Your task to perform on an android device: Open sound settings Image 0: 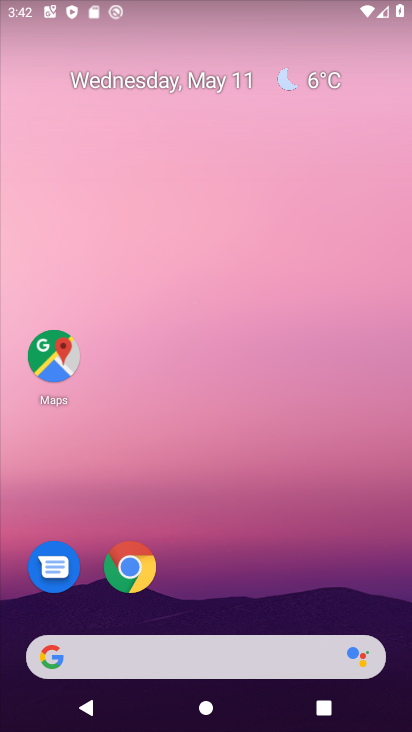
Step 0: drag from (233, 367) to (231, 287)
Your task to perform on an android device: Open sound settings Image 1: 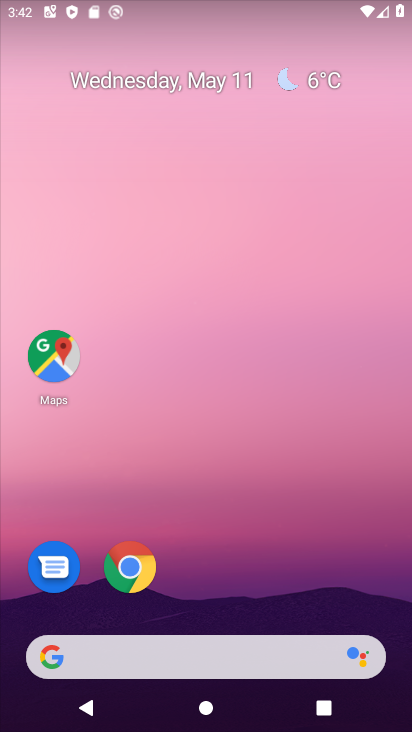
Step 1: drag from (216, 418) to (209, 335)
Your task to perform on an android device: Open sound settings Image 2: 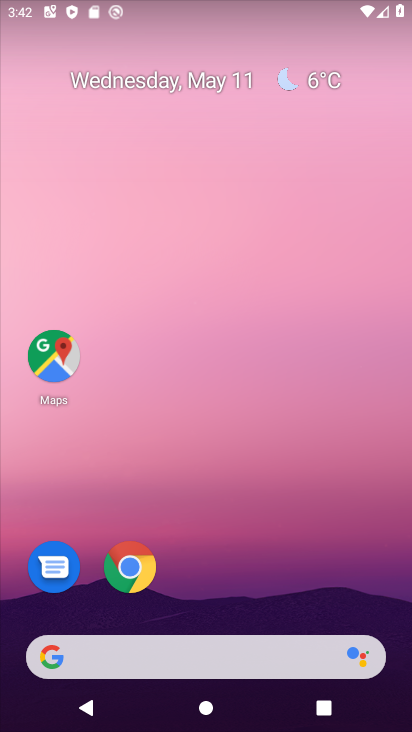
Step 2: drag from (210, 550) to (213, 293)
Your task to perform on an android device: Open sound settings Image 3: 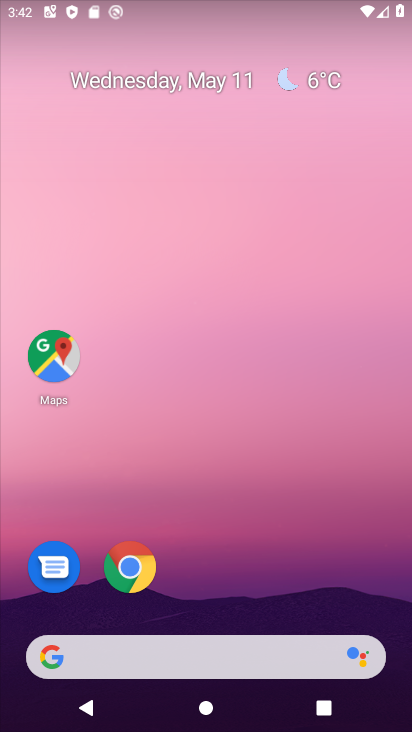
Step 3: drag from (208, 536) to (230, 178)
Your task to perform on an android device: Open sound settings Image 4: 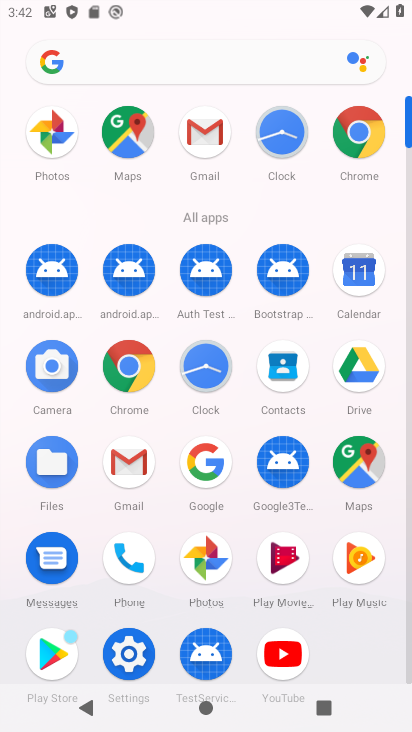
Step 4: click (112, 649)
Your task to perform on an android device: Open sound settings Image 5: 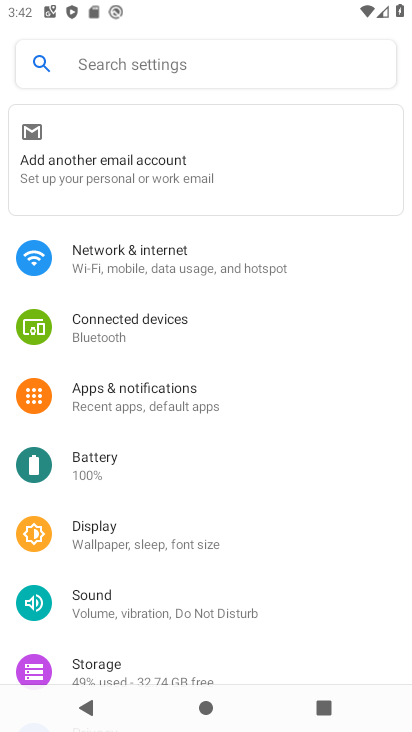
Step 5: click (122, 600)
Your task to perform on an android device: Open sound settings Image 6: 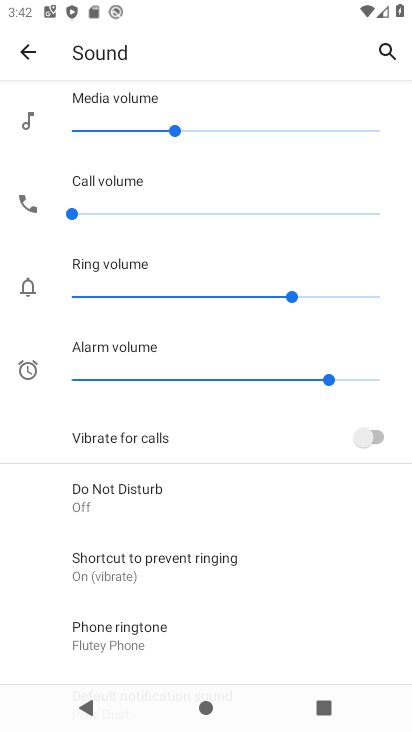
Step 6: task complete